Your task to perform on an android device: Search for the new ikea dresser Image 0: 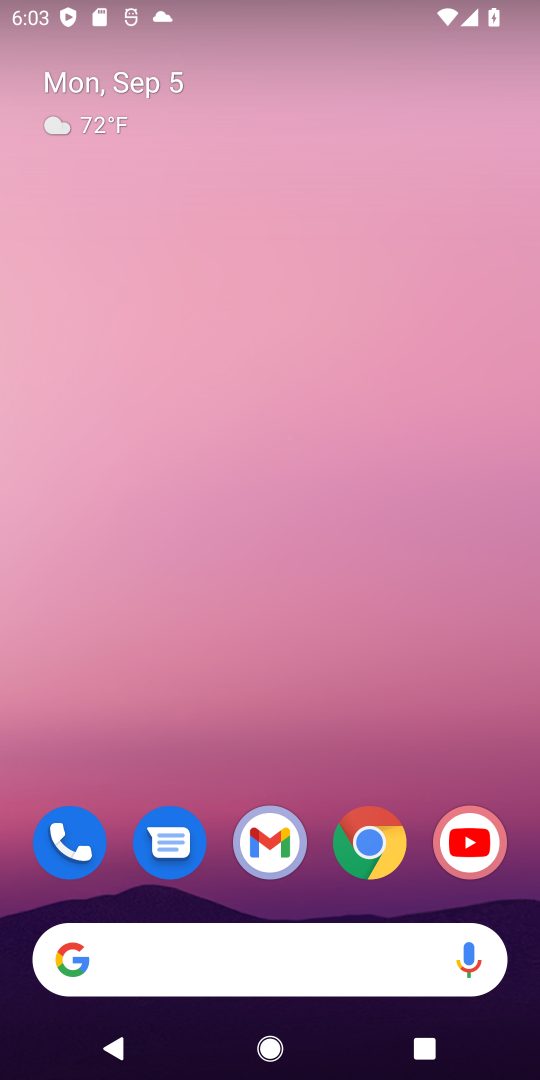
Step 0: click (369, 847)
Your task to perform on an android device: Search for the new ikea dresser Image 1: 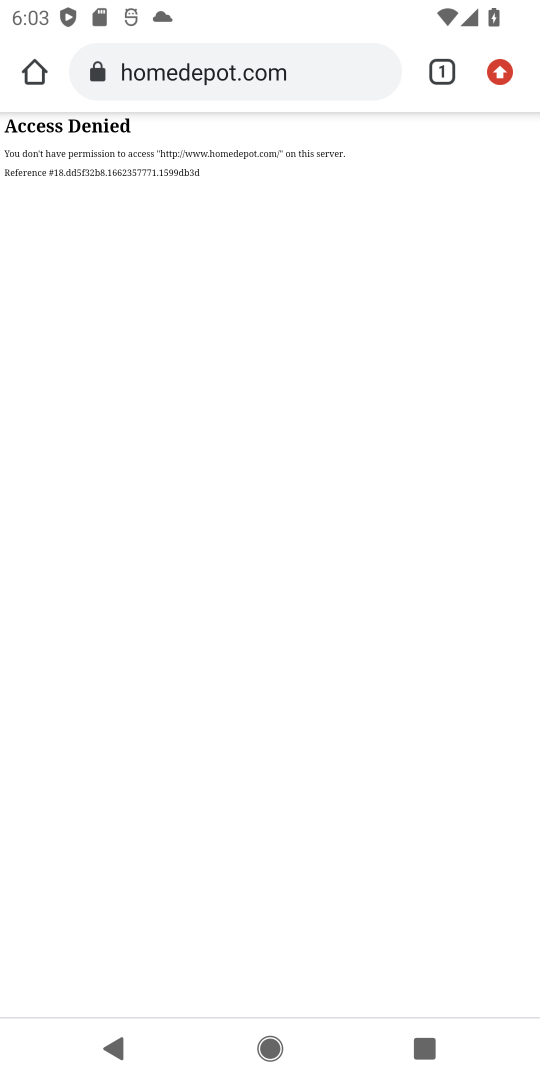
Step 1: click (345, 78)
Your task to perform on an android device: Search for the new ikea dresser Image 2: 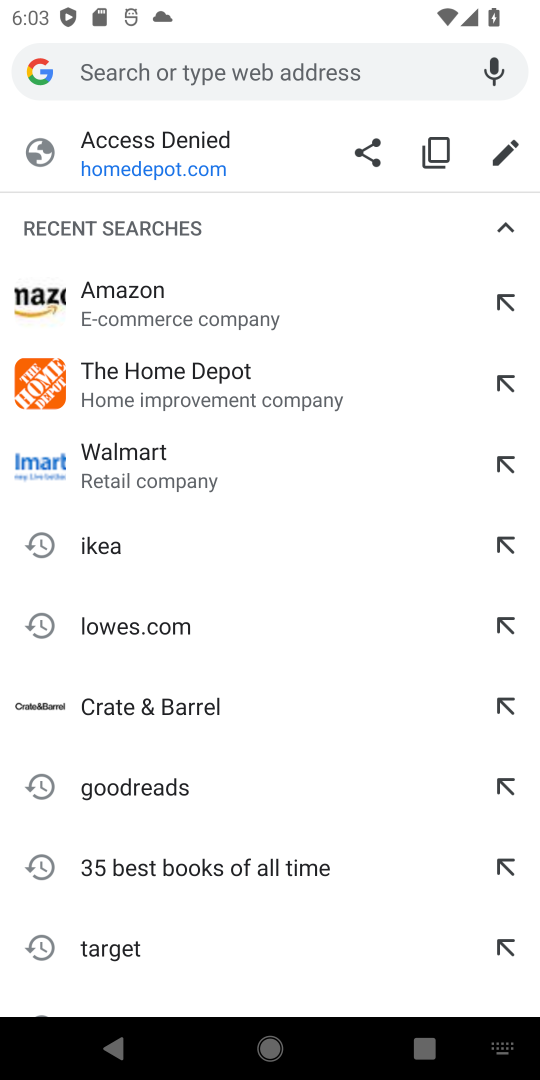
Step 2: click (375, 77)
Your task to perform on an android device: Search for the new ikea dresser Image 3: 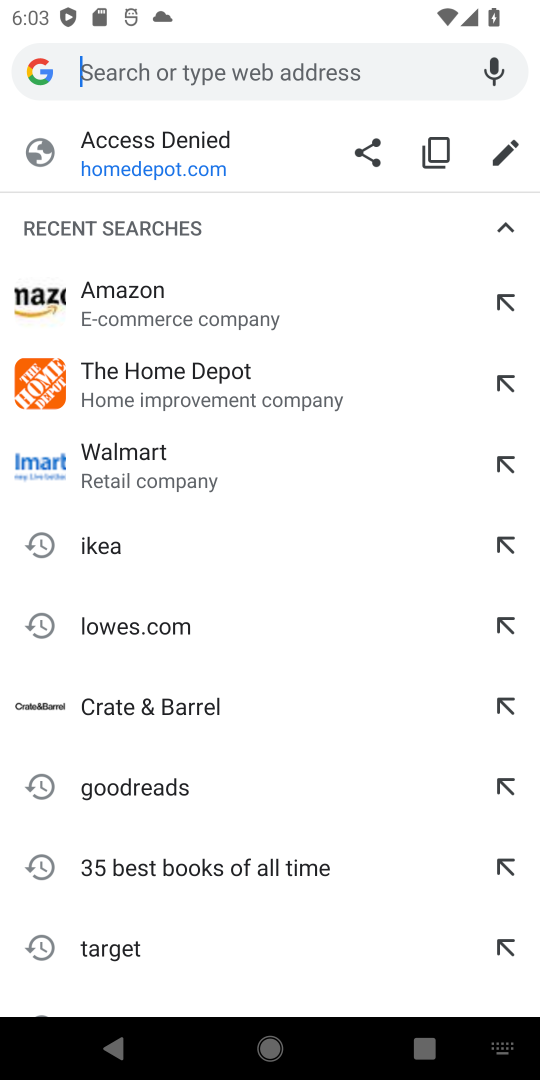
Step 3: type "new ikea dresser"
Your task to perform on an android device: Search for the new ikea dresser Image 4: 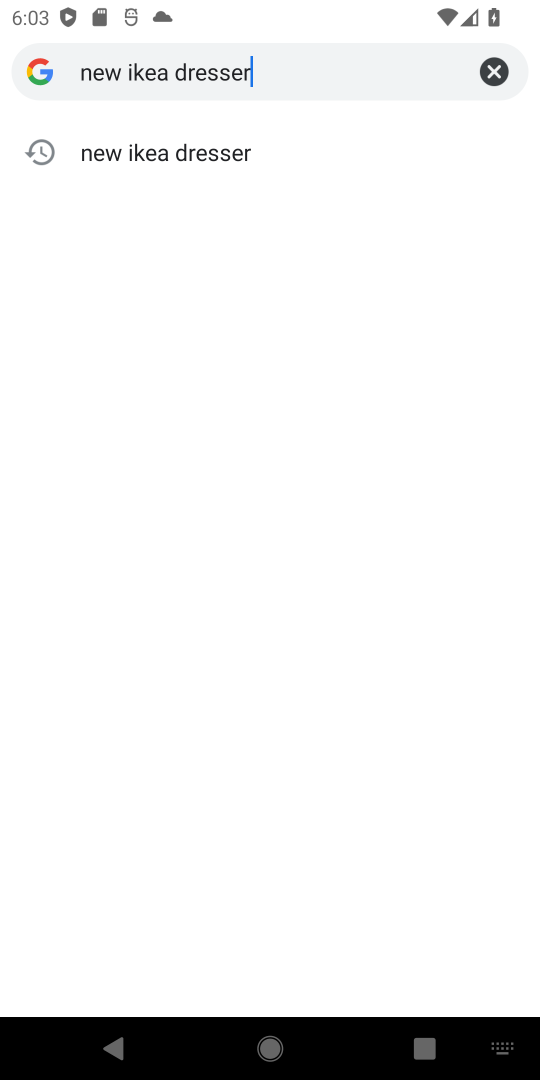
Step 4: click (218, 165)
Your task to perform on an android device: Search for the new ikea dresser Image 5: 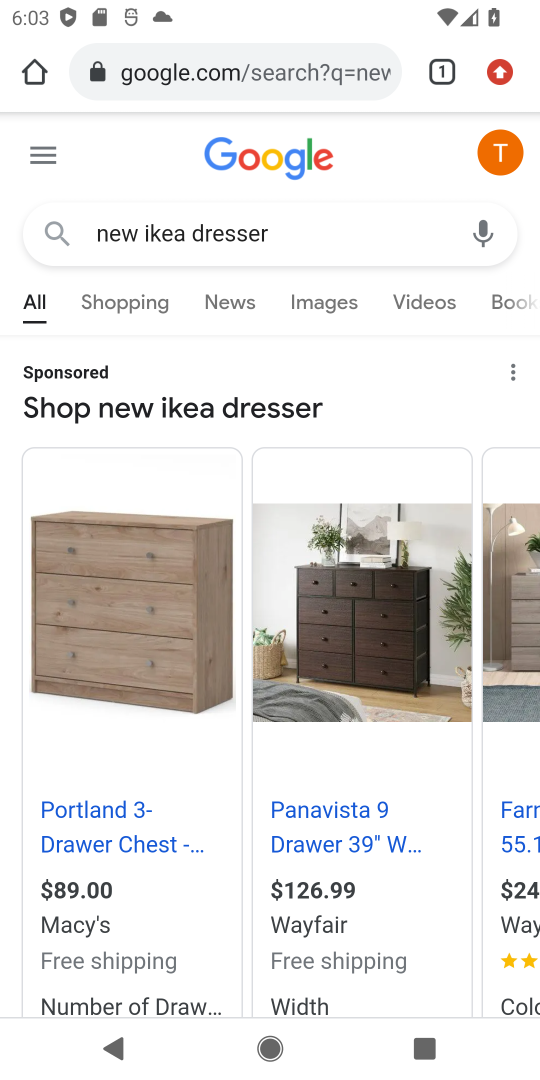
Step 5: drag from (417, 895) to (76, 805)
Your task to perform on an android device: Search for the new ikea dresser Image 6: 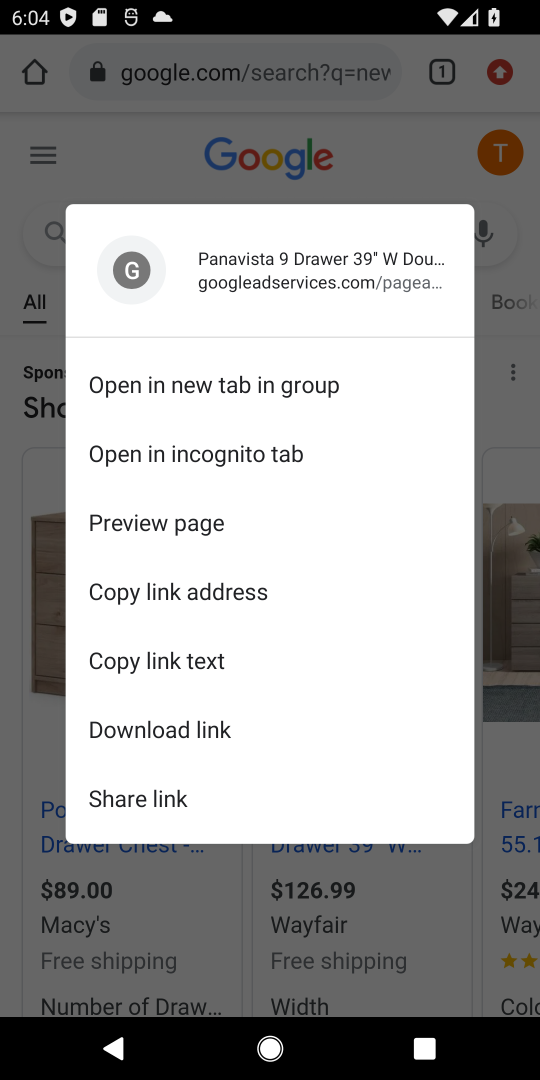
Step 6: click (156, 154)
Your task to perform on an android device: Search for the new ikea dresser Image 7: 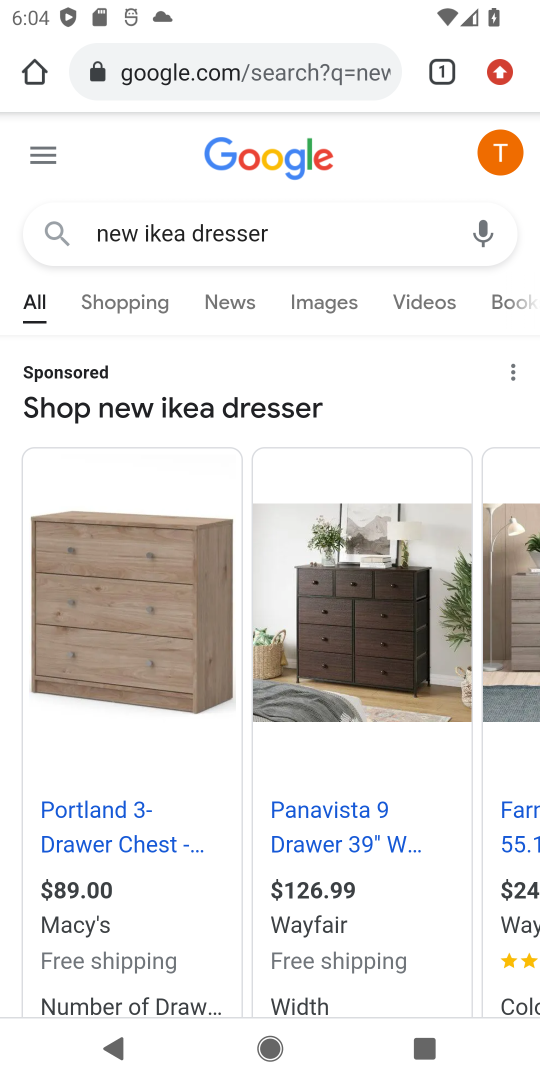
Step 7: task complete